Your task to perform on an android device: Search for macbook air on bestbuy.com, select the first entry, add it to the cart, then select checkout. Image 0: 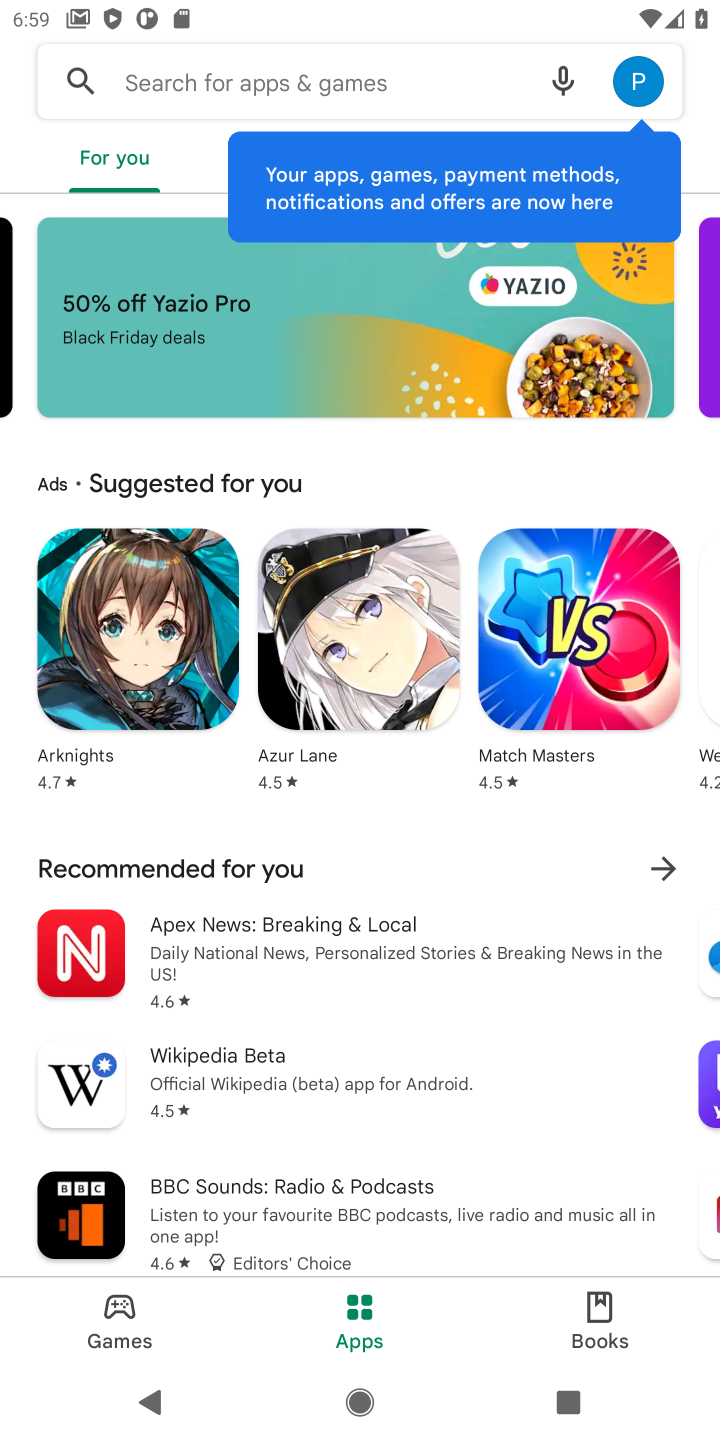
Step 0: press home button
Your task to perform on an android device: Search for macbook air on bestbuy.com, select the first entry, add it to the cart, then select checkout. Image 1: 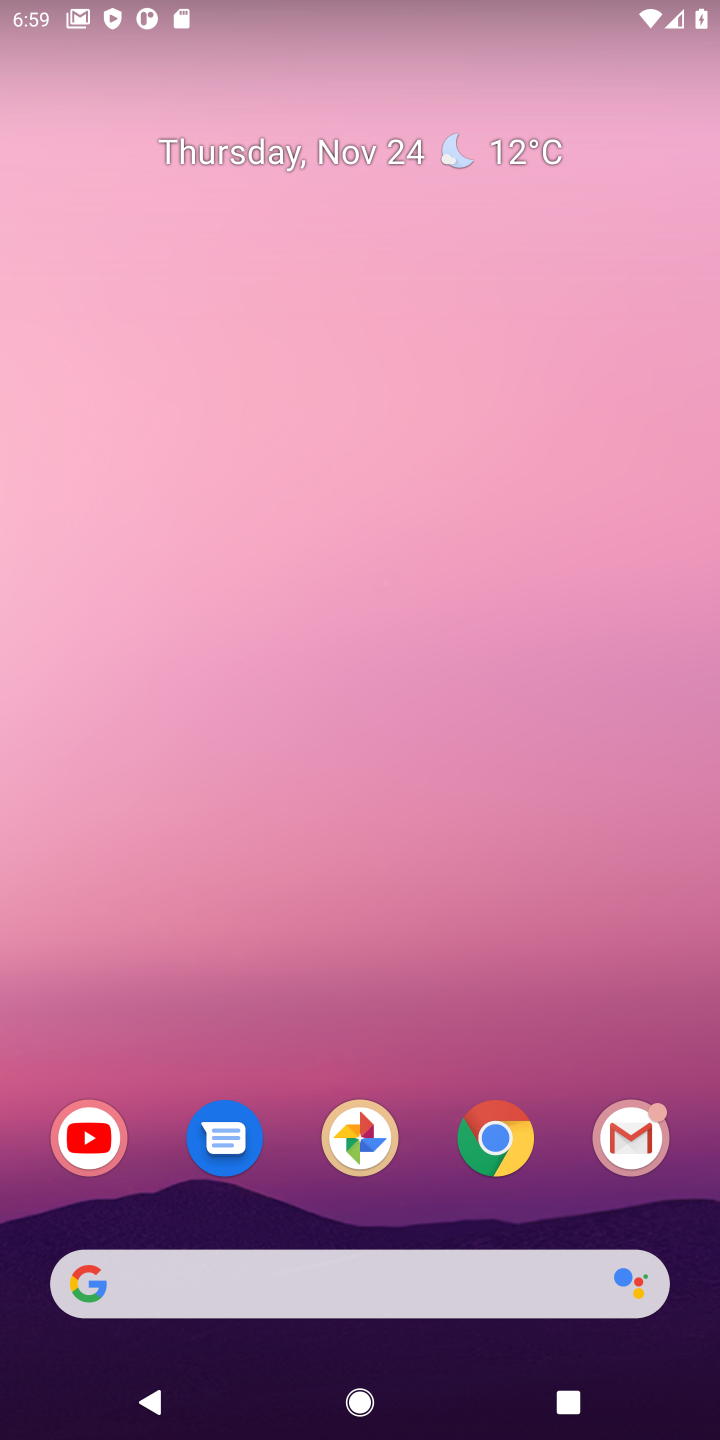
Step 1: click (483, 1145)
Your task to perform on an android device: Search for macbook air on bestbuy.com, select the first entry, add it to the cart, then select checkout. Image 2: 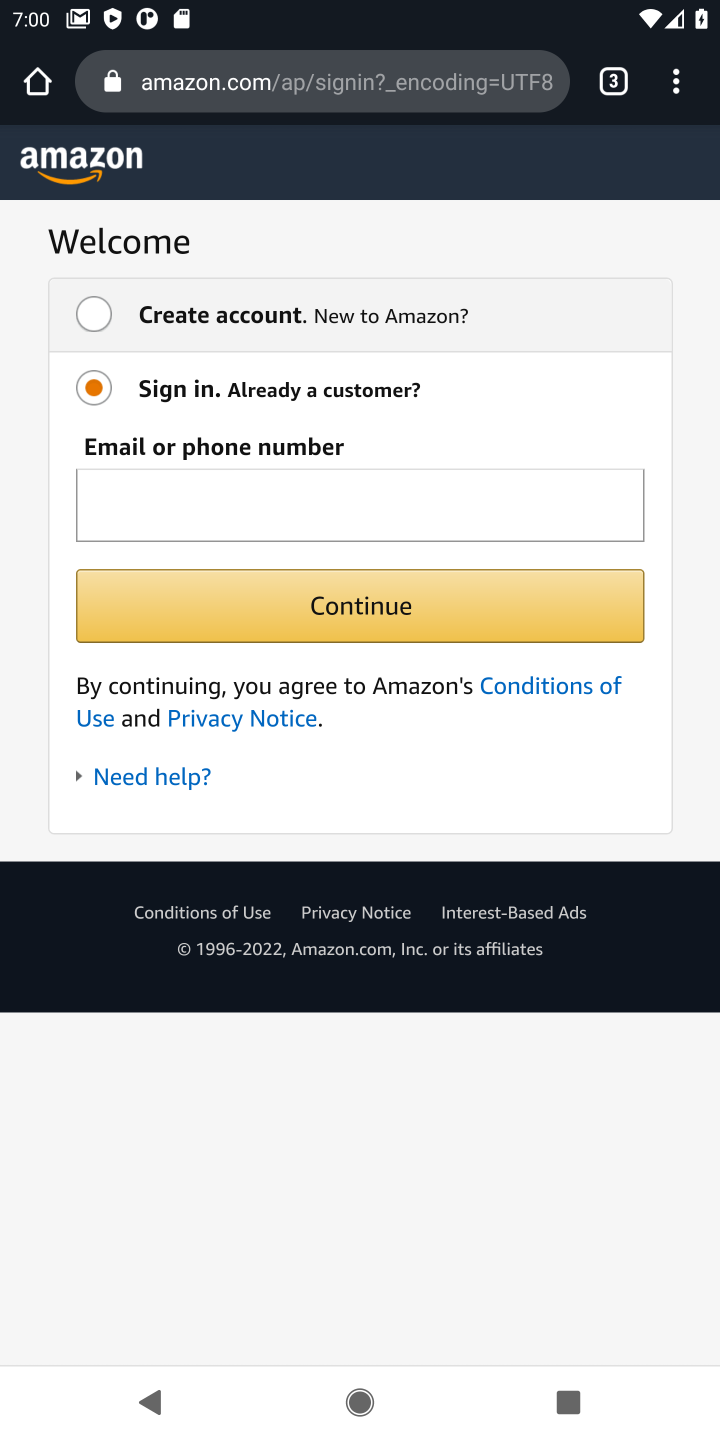
Step 2: click (603, 76)
Your task to perform on an android device: Search for macbook air on bestbuy.com, select the first entry, add it to the cart, then select checkout. Image 3: 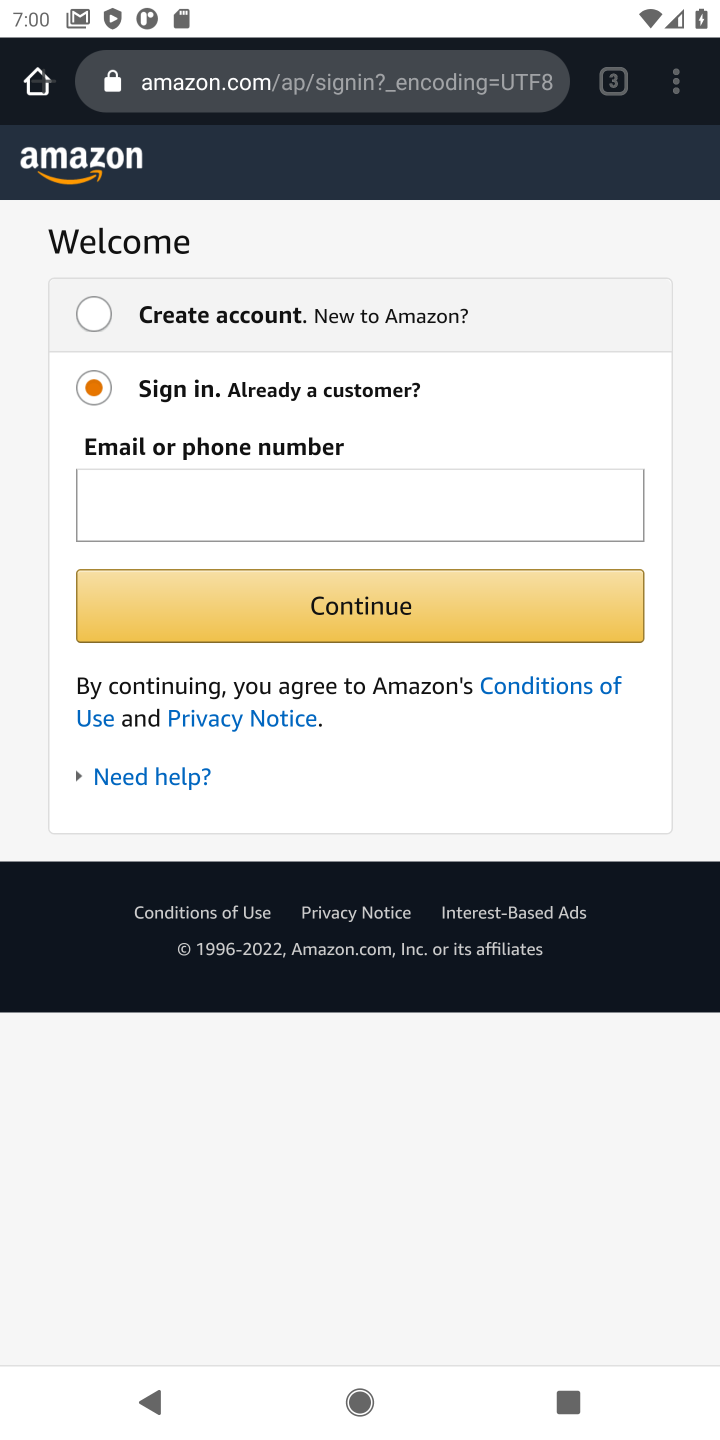
Step 3: click (603, 76)
Your task to perform on an android device: Search for macbook air on bestbuy.com, select the first entry, add it to the cart, then select checkout. Image 4: 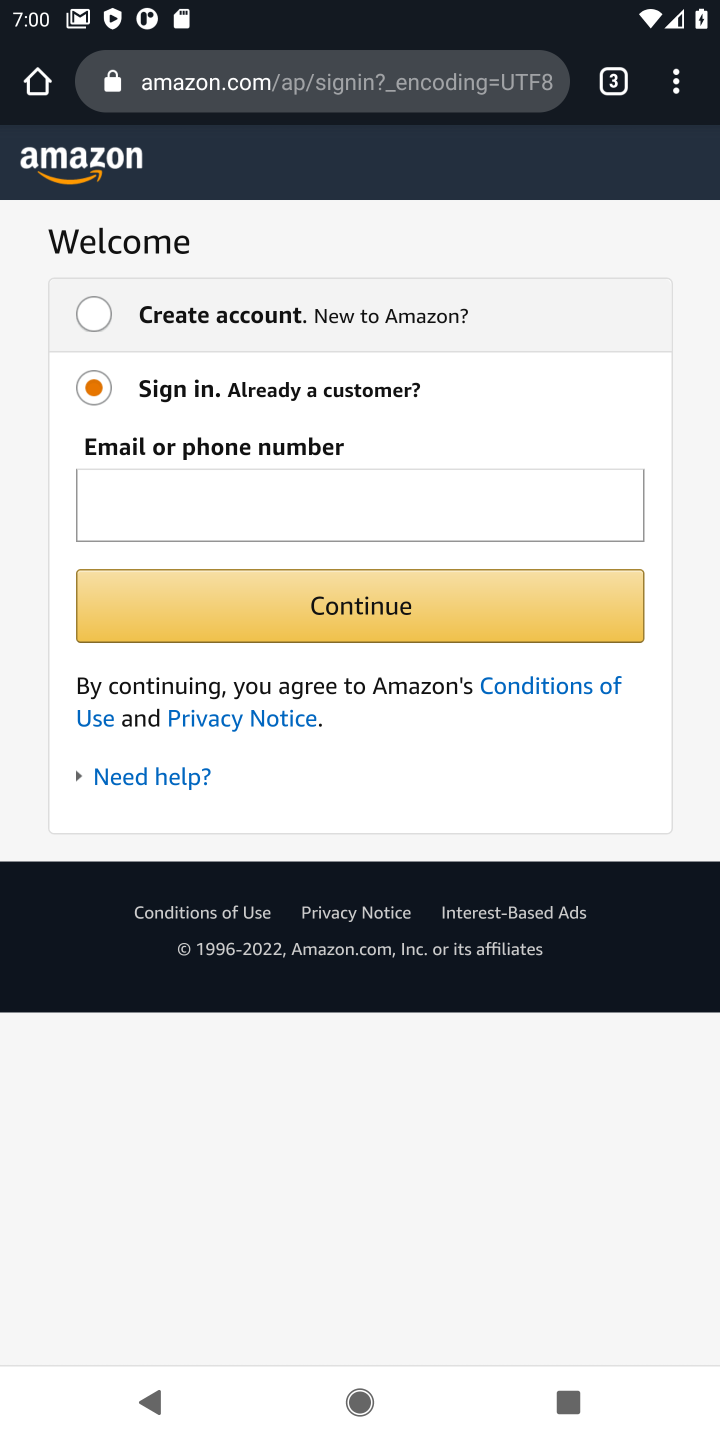
Step 4: click (612, 84)
Your task to perform on an android device: Search for macbook air on bestbuy.com, select the first entry, add it to the cart, then select checkout. Image 5: 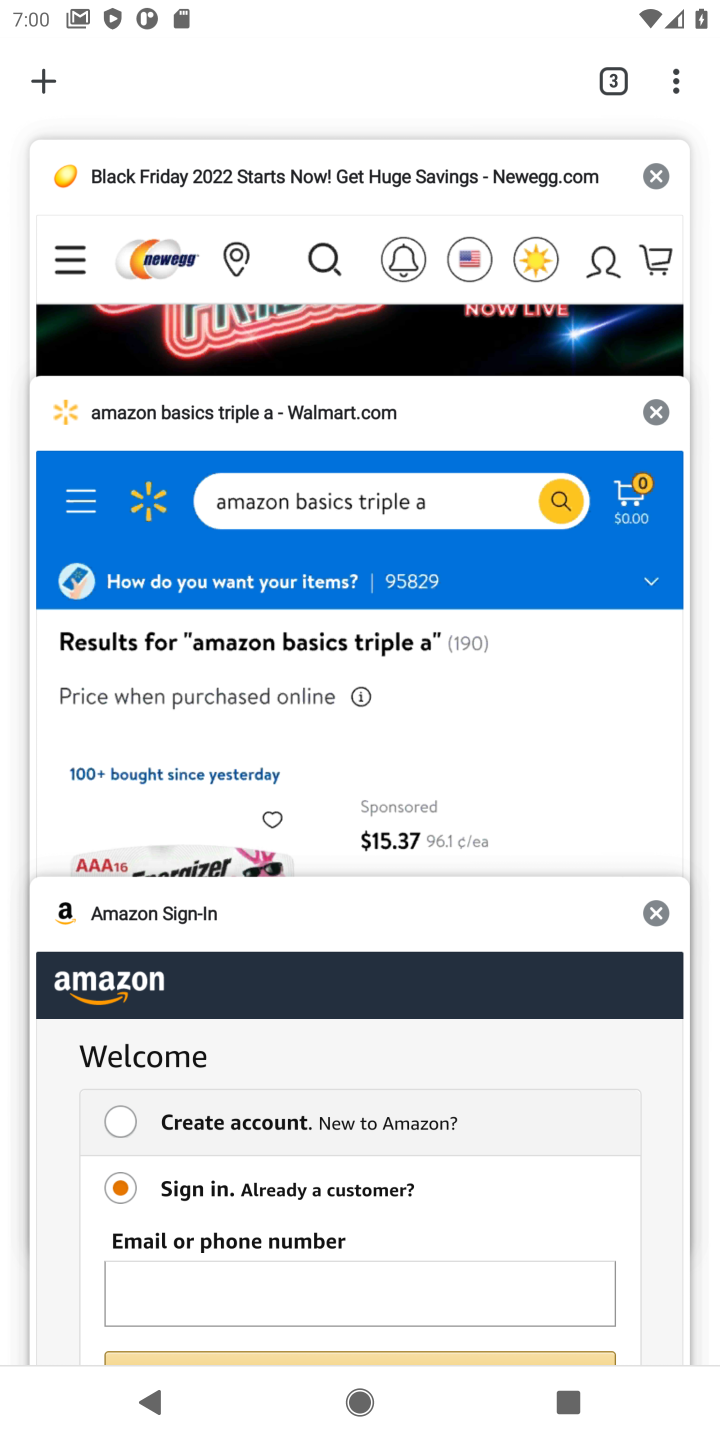
Step 5: click (34, 68)
Your task to perform on an android device: Search for macbook air on bestbuy.com, select the first entry, add it to the cart, then select checkout. Image 6: 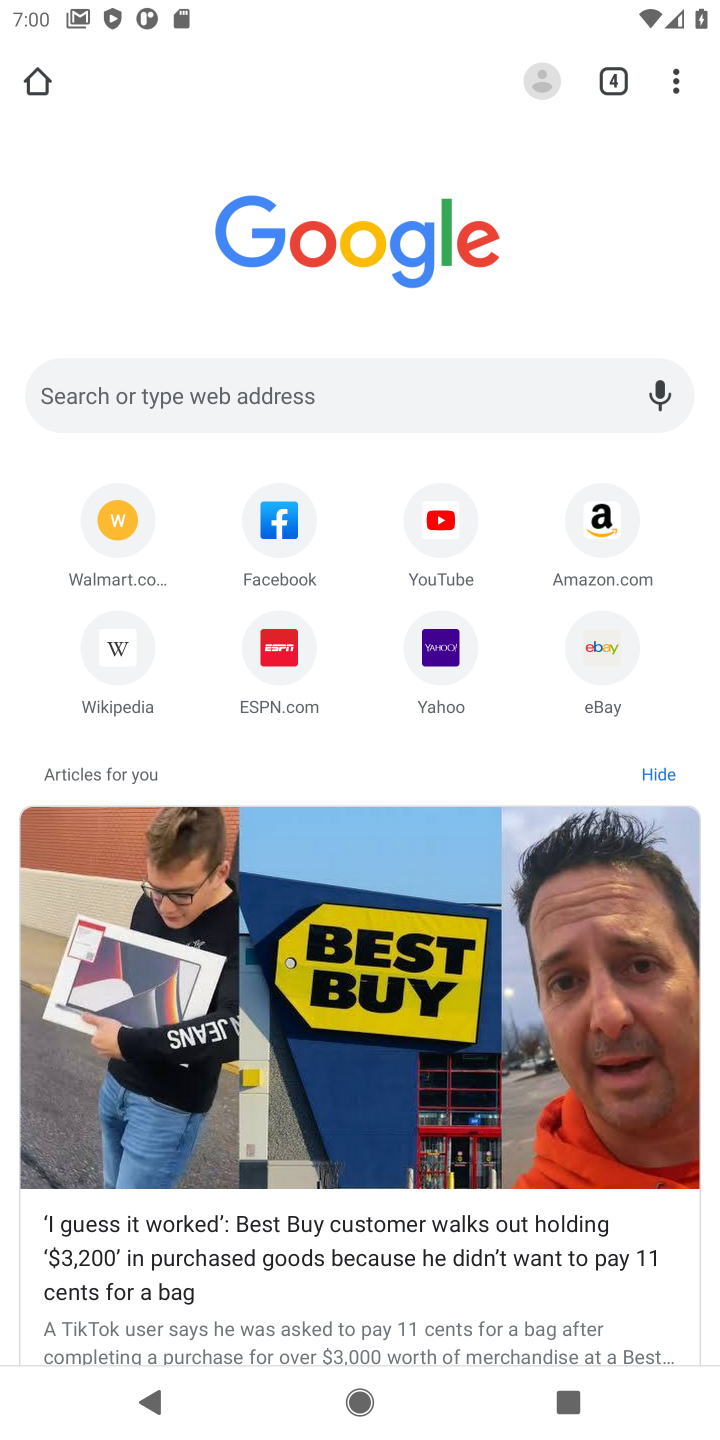
Step 6: click (208, 373)
Your task to perform on an android device: Search for macbook air on bestbuy.com, select the first entry, add it to the cart, then select checkout. Image 7: 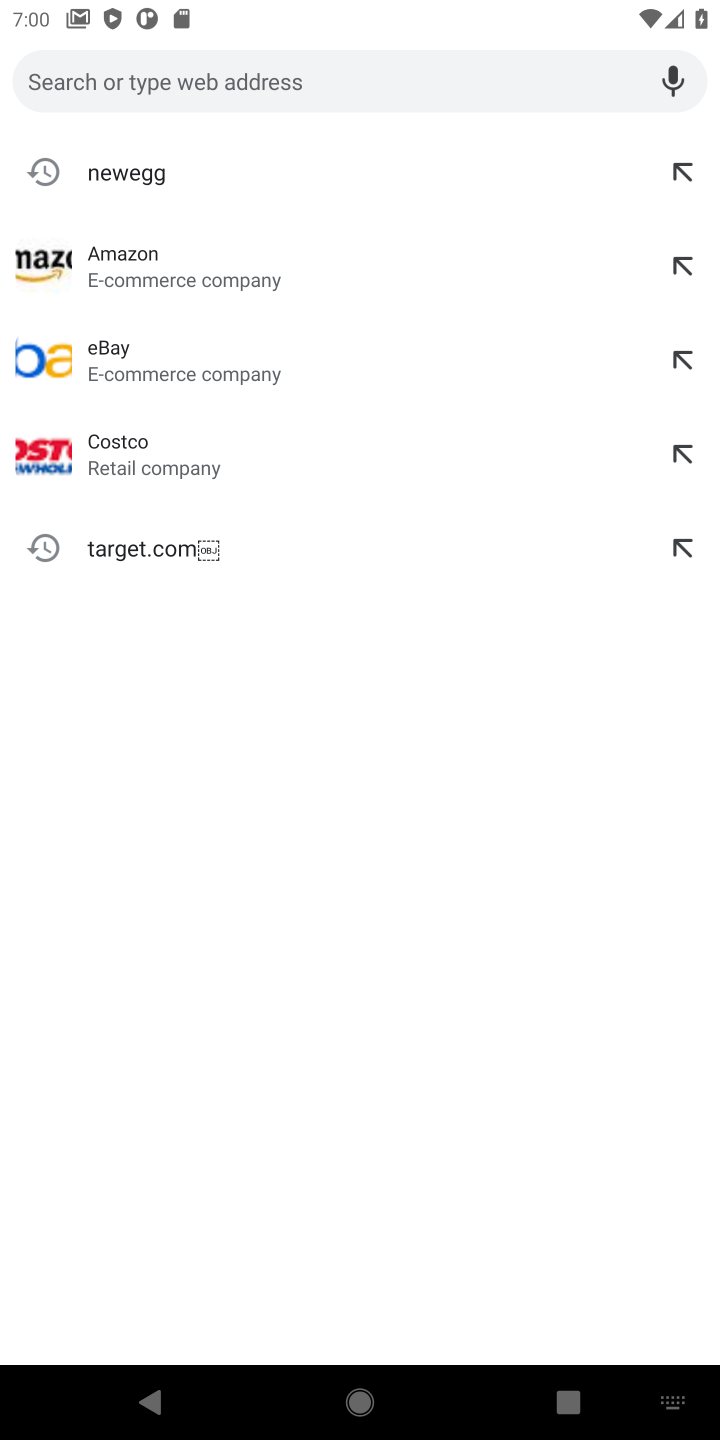
Step 7: click (195, 76)
Your task to perform on an android device: Search for macbook air on bestbuy.com, select the first entry, add it to the cart, then select checkout. Image 8: 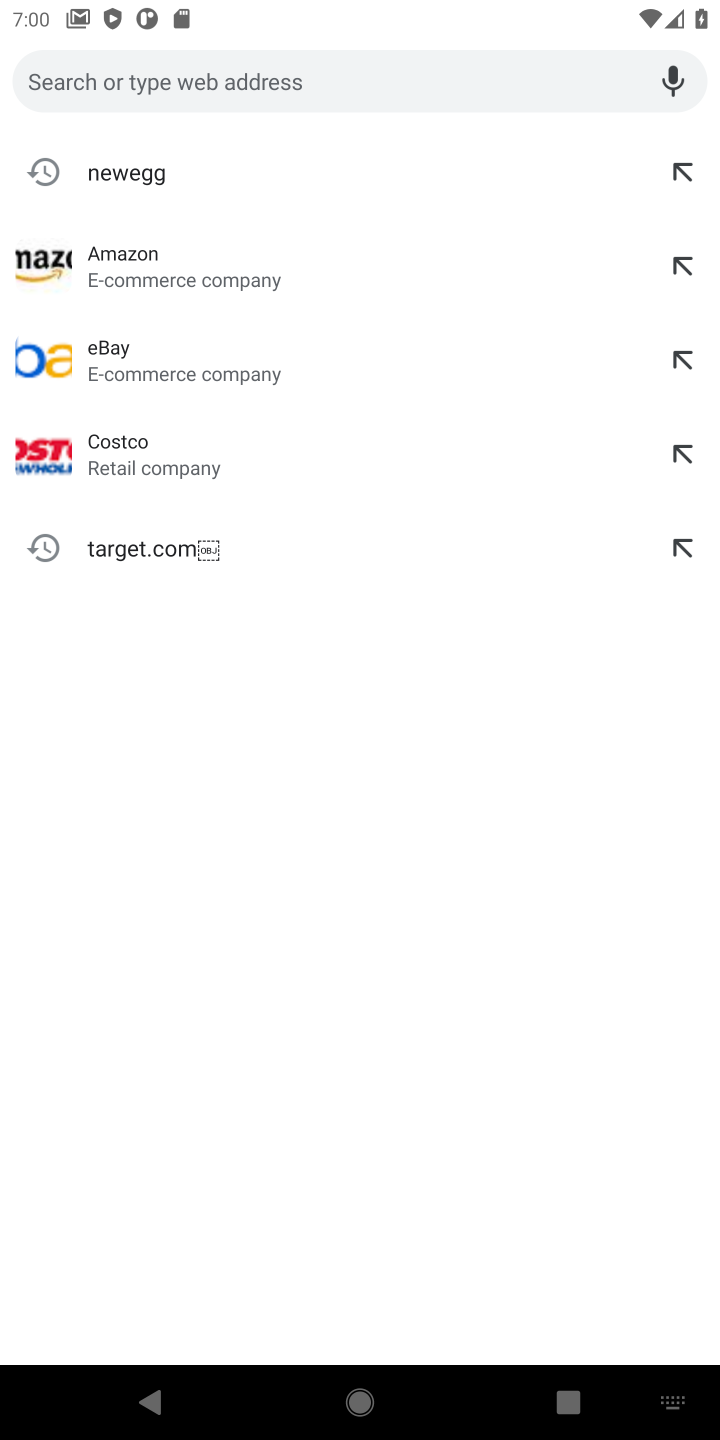
Step 8: click (396, 44)
Your task to perform on an android device: Search for macbook air on bestbuy.com, select the first entry, add it to the cart, then select checkout. Image 9: 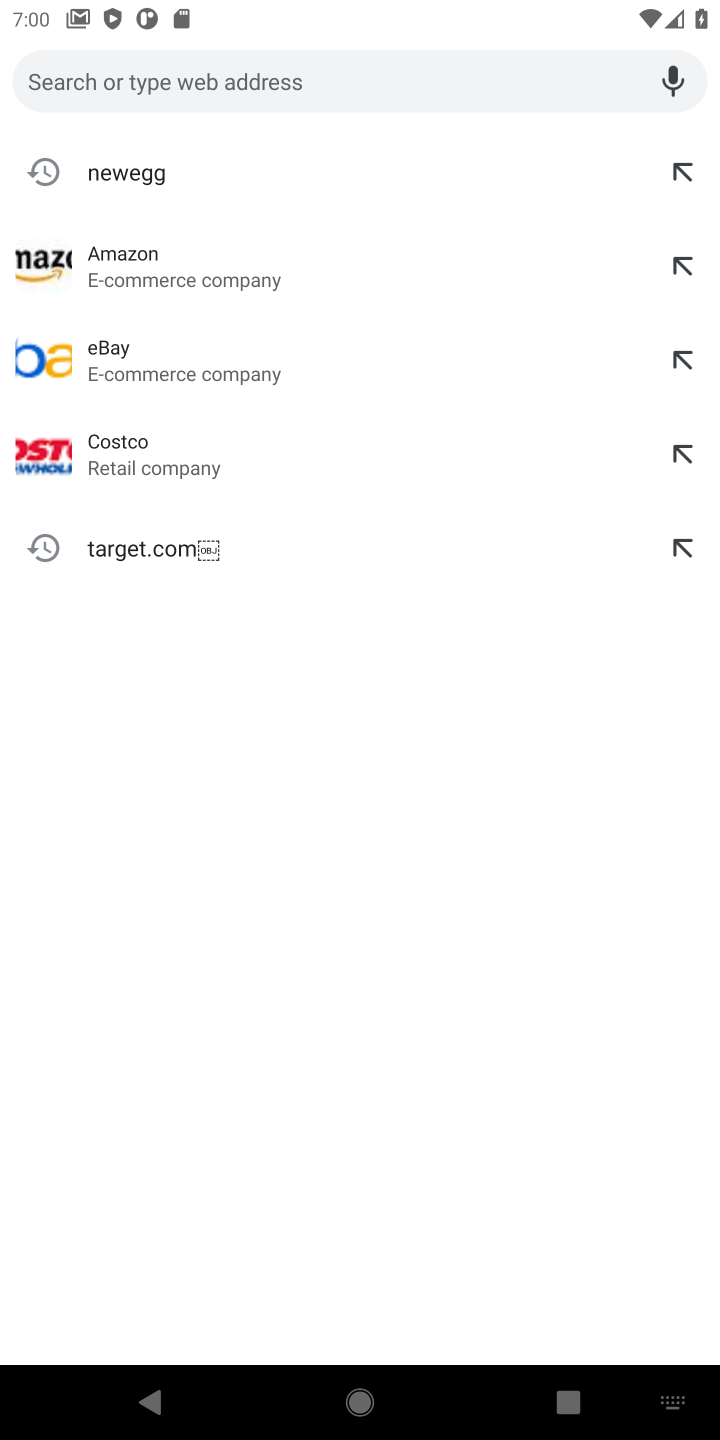
Step 9: type " bestbuy.com"
Your task to perform on an android device: Search for macbook air on bestbuy.com, select the first entry, add it to the cart, then select checkout. Image 10: 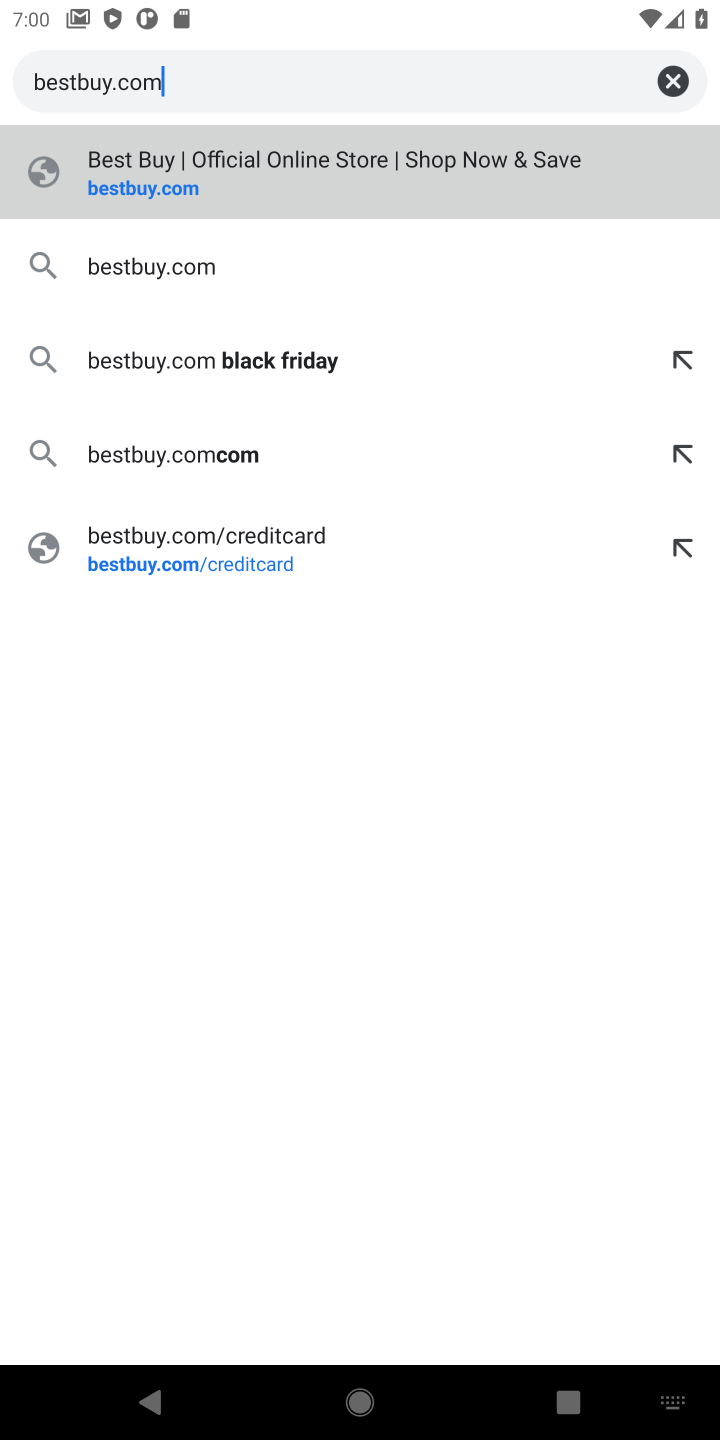
Step 10: click (217, 171)
Your task to perform on an android device: Search for macbook air on bestbuy.com, select the first entry, add it to the cart, then select checkout. Image 11: 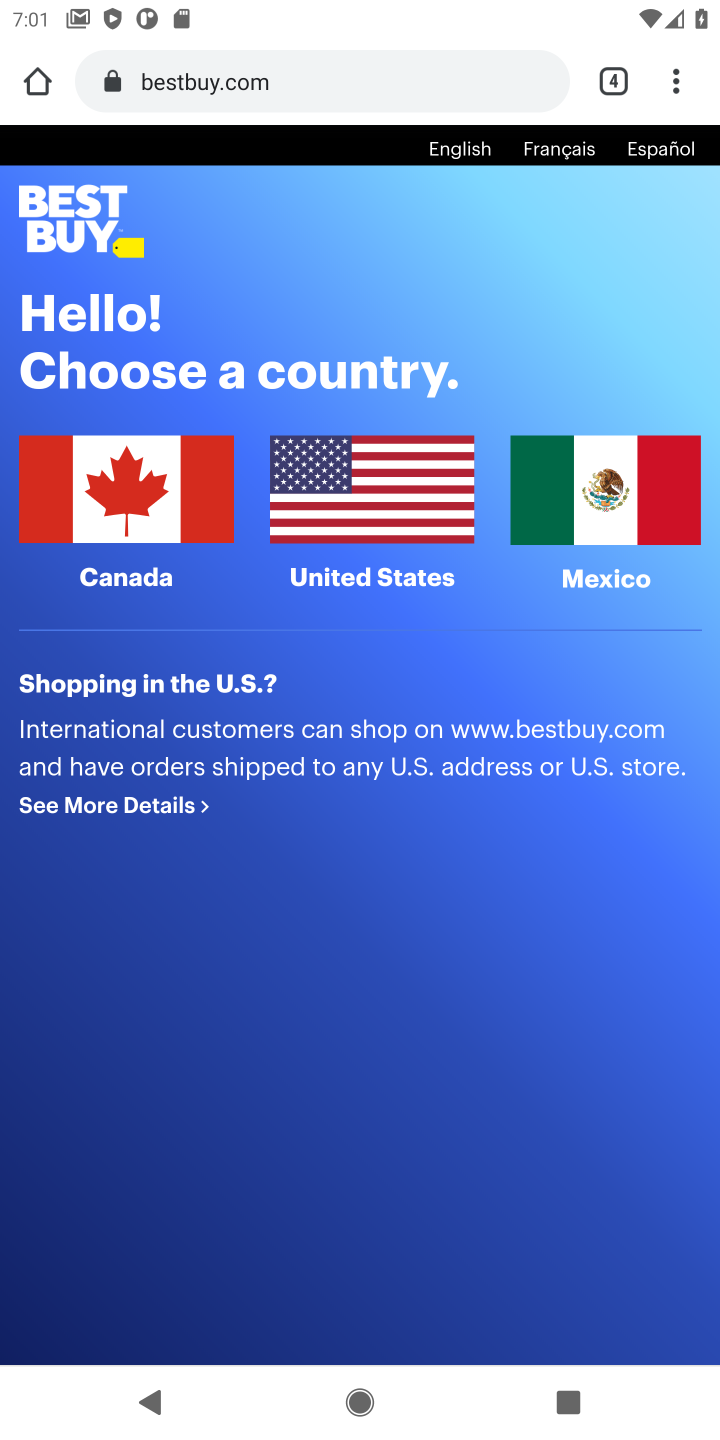
Step 11: click (360, 504)
Your task to perform on an android device: Search for macbook air on bestbuy.com, select the first entry, add it to the cart, then select checkout. Image 12: 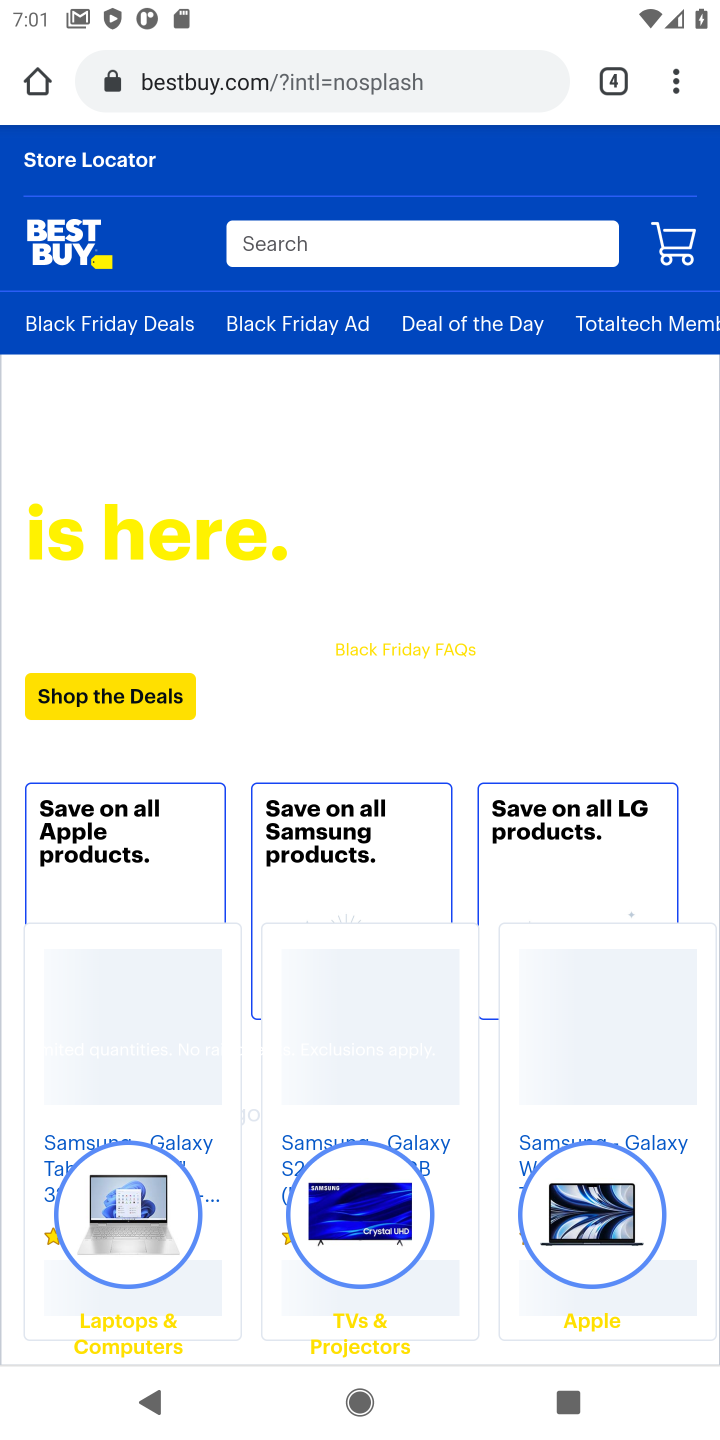
Step 12: click (285, 251)
Your task to perform on an android device: Search for macbook air on bestbuy.com, select the first entry, add it to the cart, then select checkout. Image 13: 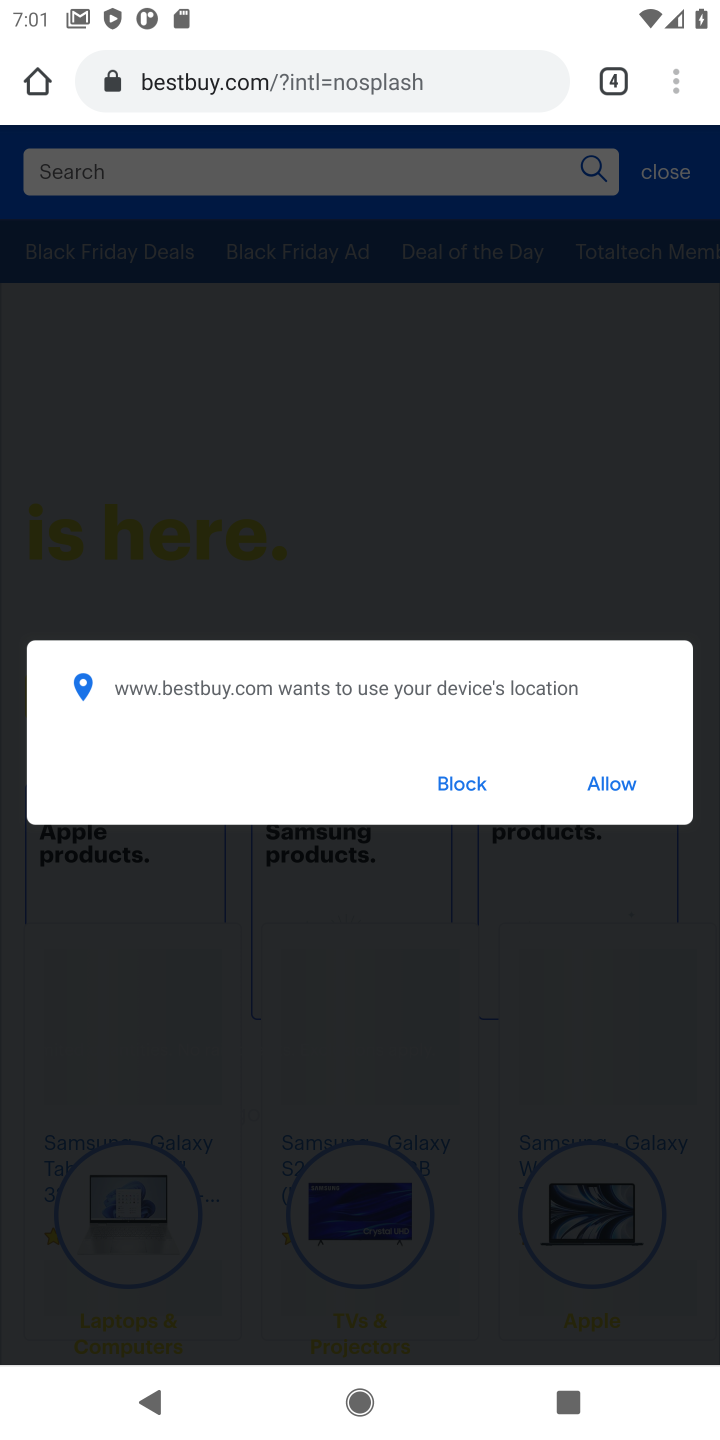
Step 13: click (465, 796)
Your task to perform on an android device: Search for macbook air on bestbuy.com, select the first entry, add it to the cart, then select checkout. Image 14: 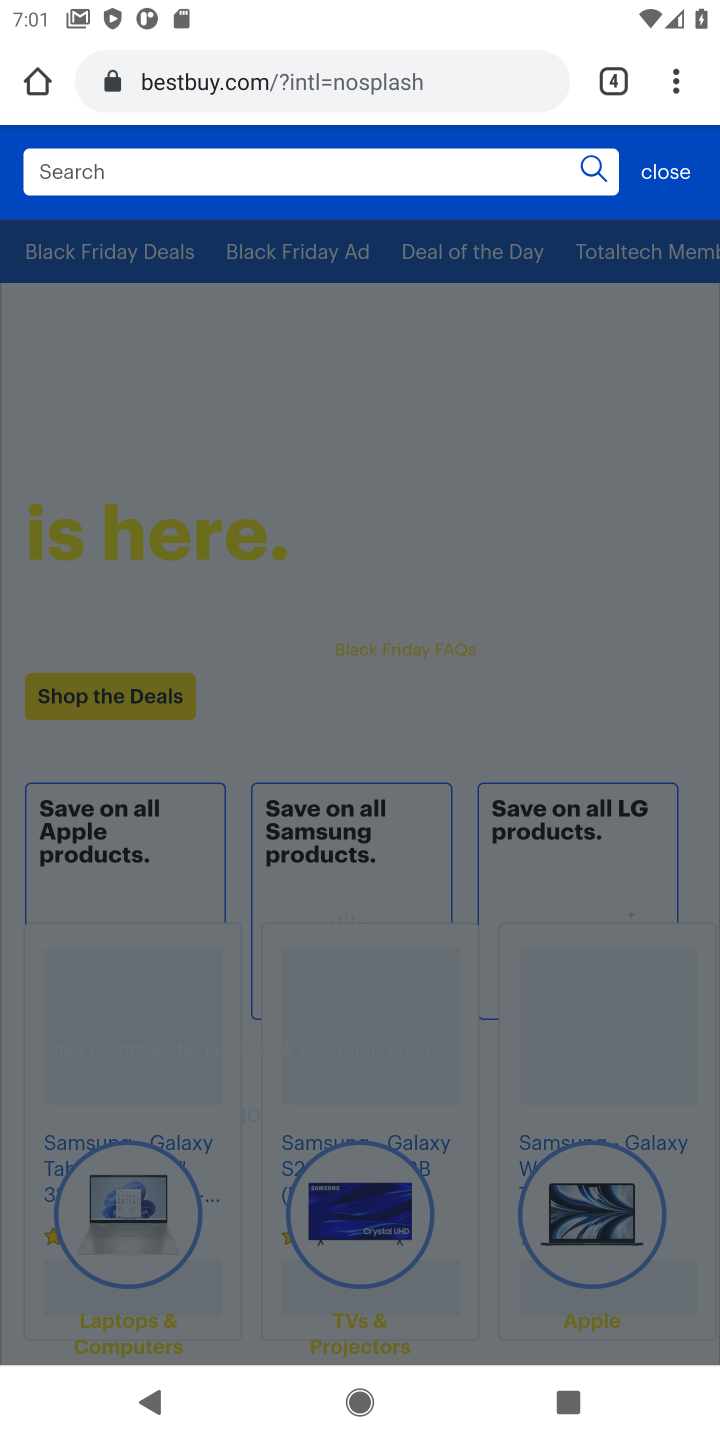
Step 14: click (191, 179)
Your task to perform on an android device: Search for macbook air on bestbuy.com, select the first entry, add it to the cart, then select checkout. Image 15: 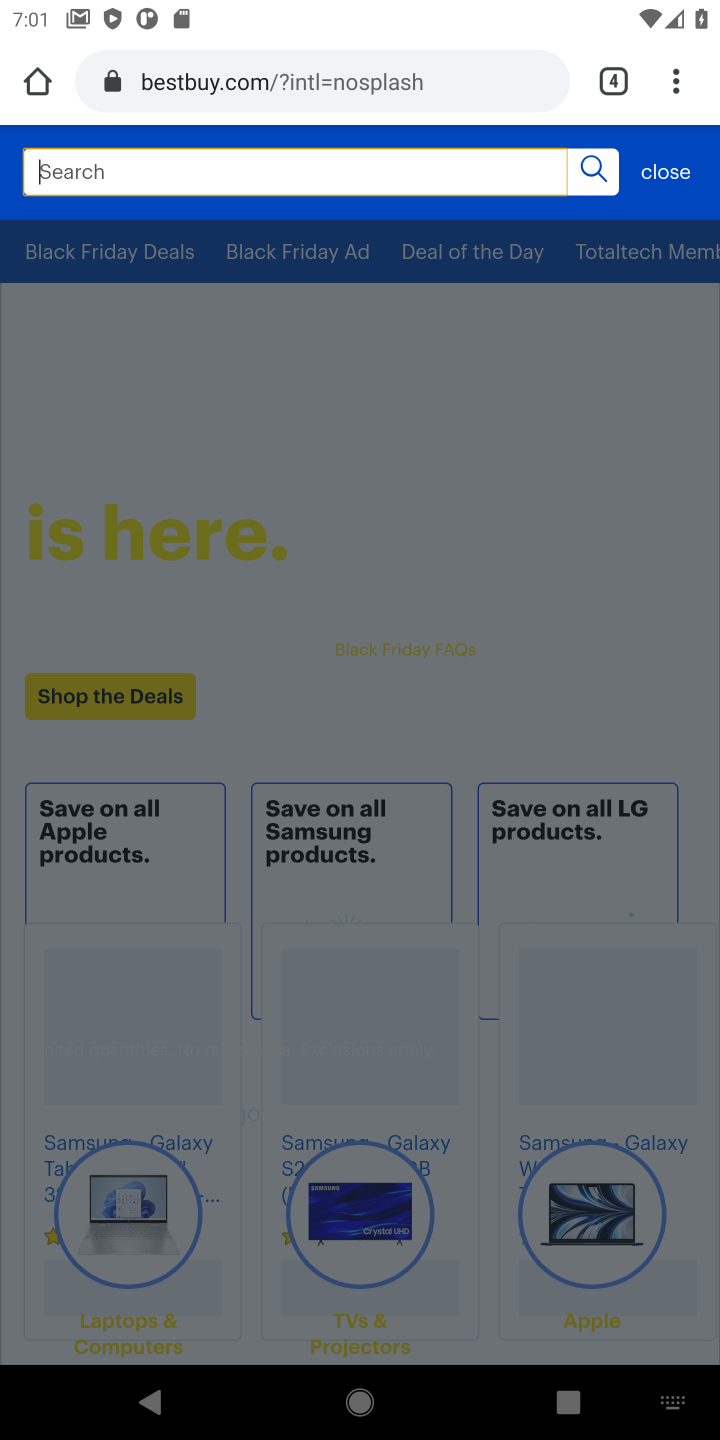
Step 15: type "macbook air"
Your task to perform on an android device: Search for macbook air on bestbuy.com, select the first entry, add it to the cart, then select checkout. Image 16: 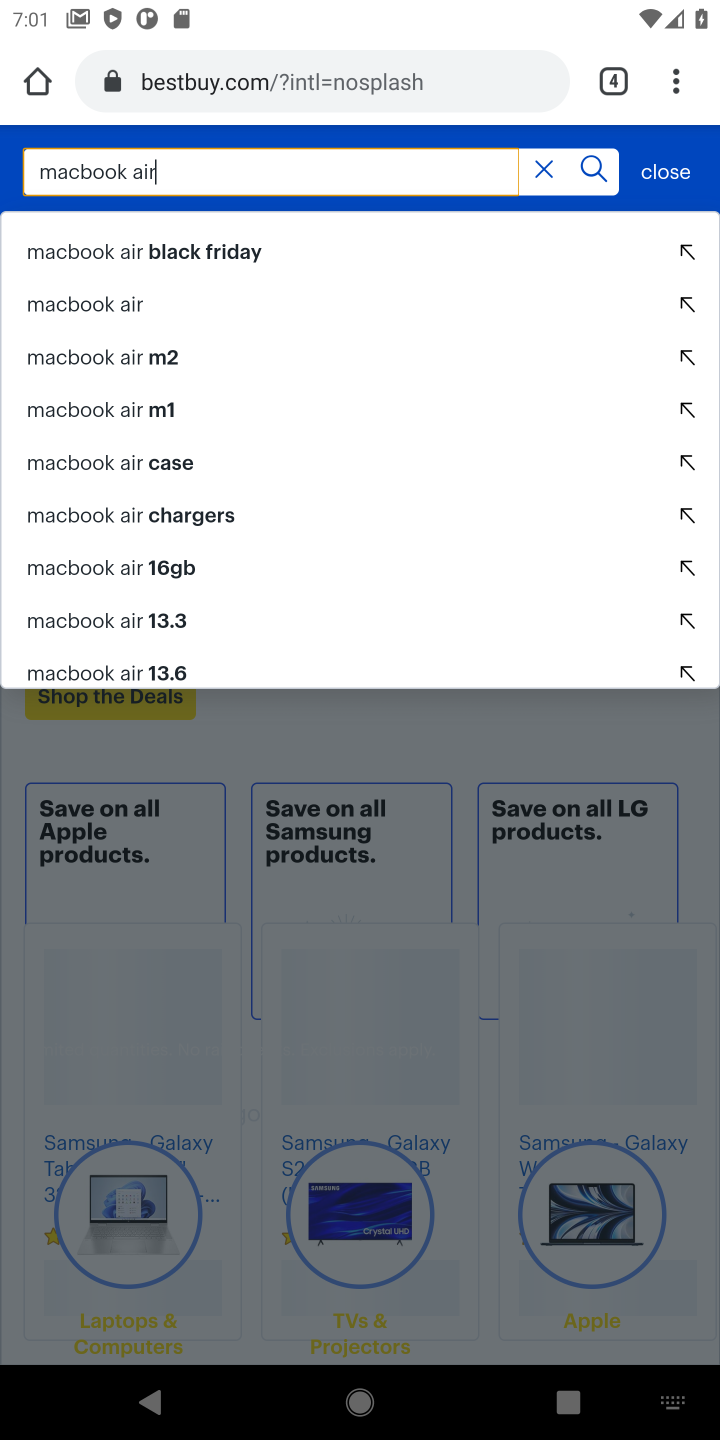
Step 16: click (143, 243)
Your task to perform on an android device: Search for macbook air on bestbuy.com, select the first entry, add it to the cart, then select checkout. Image 17: 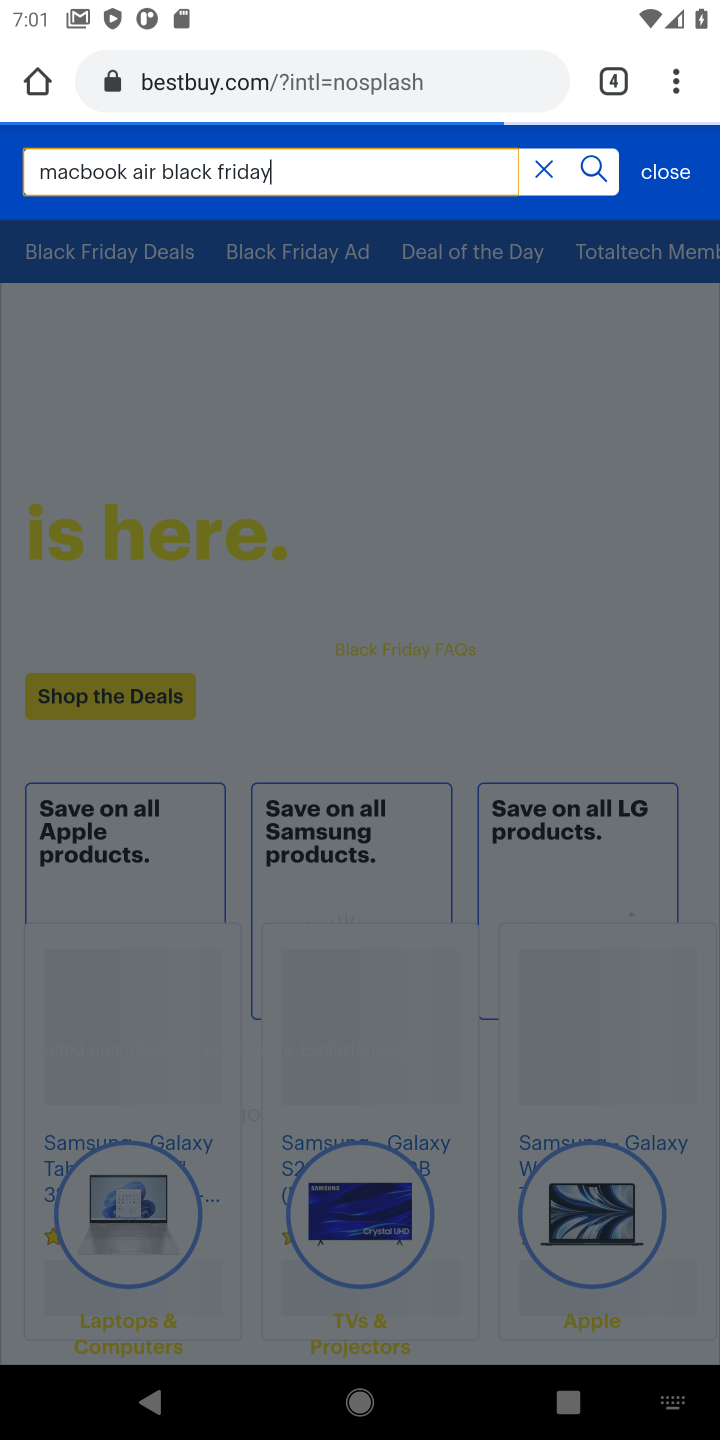
Step 17: click (143, 243)
Your task to perform on an android device: Search for macbook air on bestbuy.com, select the first entry, add it to the cart, then select checkout. Image 18: 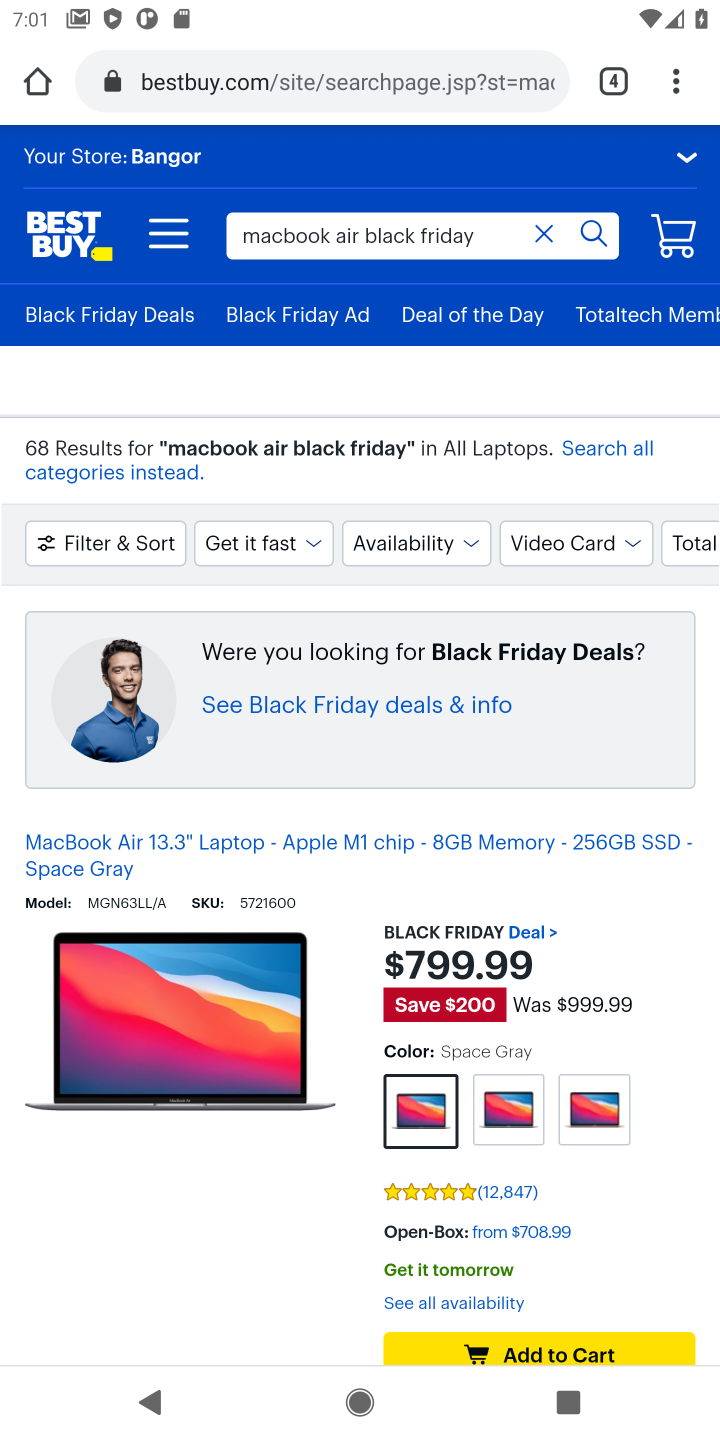
Step 18: drag from (347, 1067) to (314, 564)
Your task to perform on an android device: Search for macbook air on bestbuy.com, select the first entry, add it to the cart, then select checkout. Image 19: 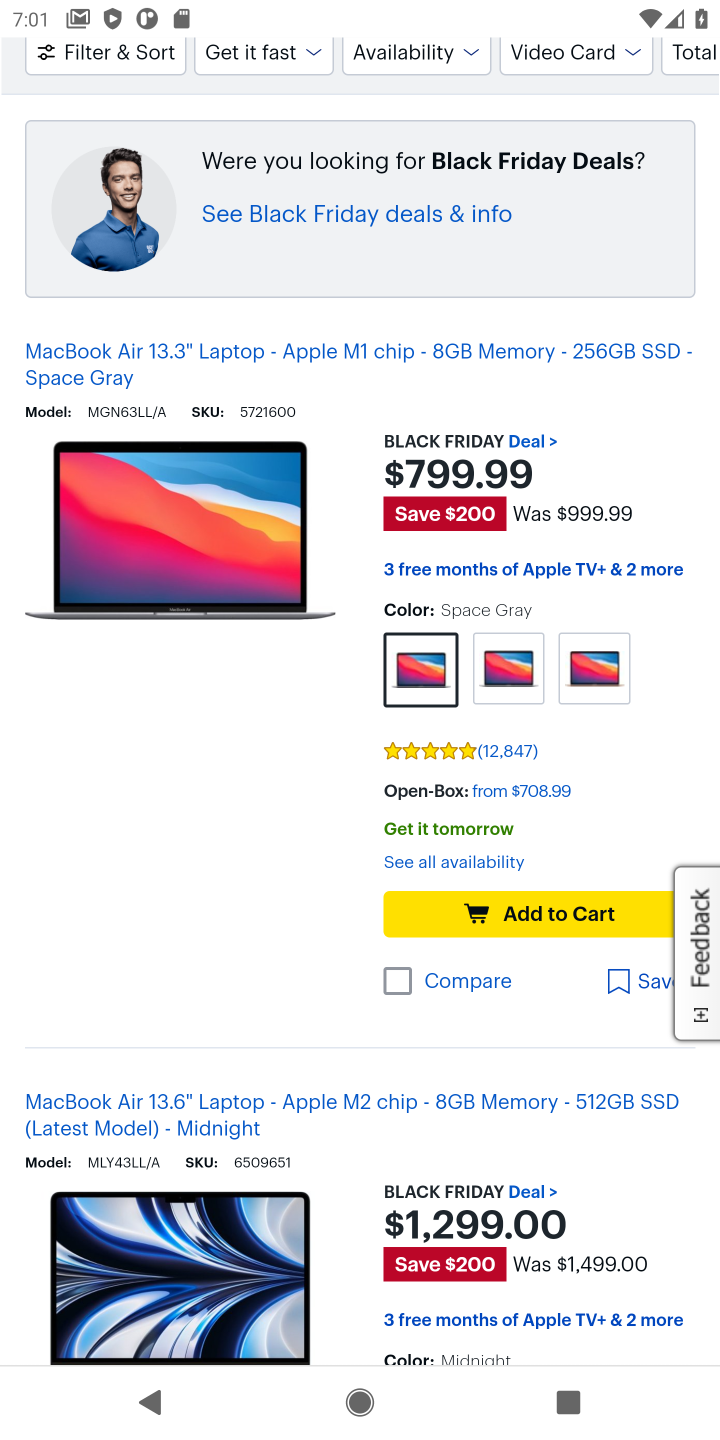
Step 19: click (540, 930)
Your task to perform on an android device: Search for macbook air on bestbuy.com, select the first entry, add it to the cart, then select checkout. Image 20: 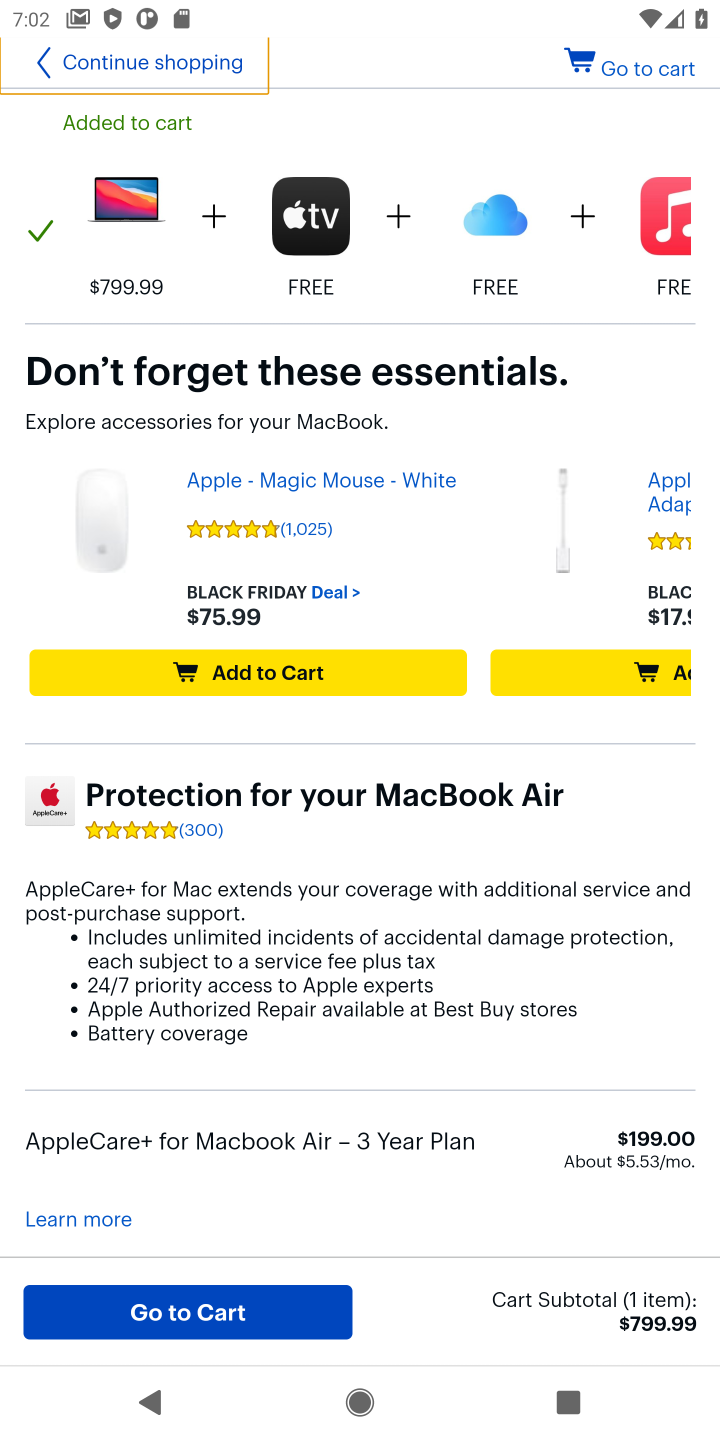
Step 20: drag from (425, 1093) to (341, 901)
Your task to perform on an android device: Search for macbook air on bestbuy.com, select the first entry, add it to the cart, then select checkout. Image 21: 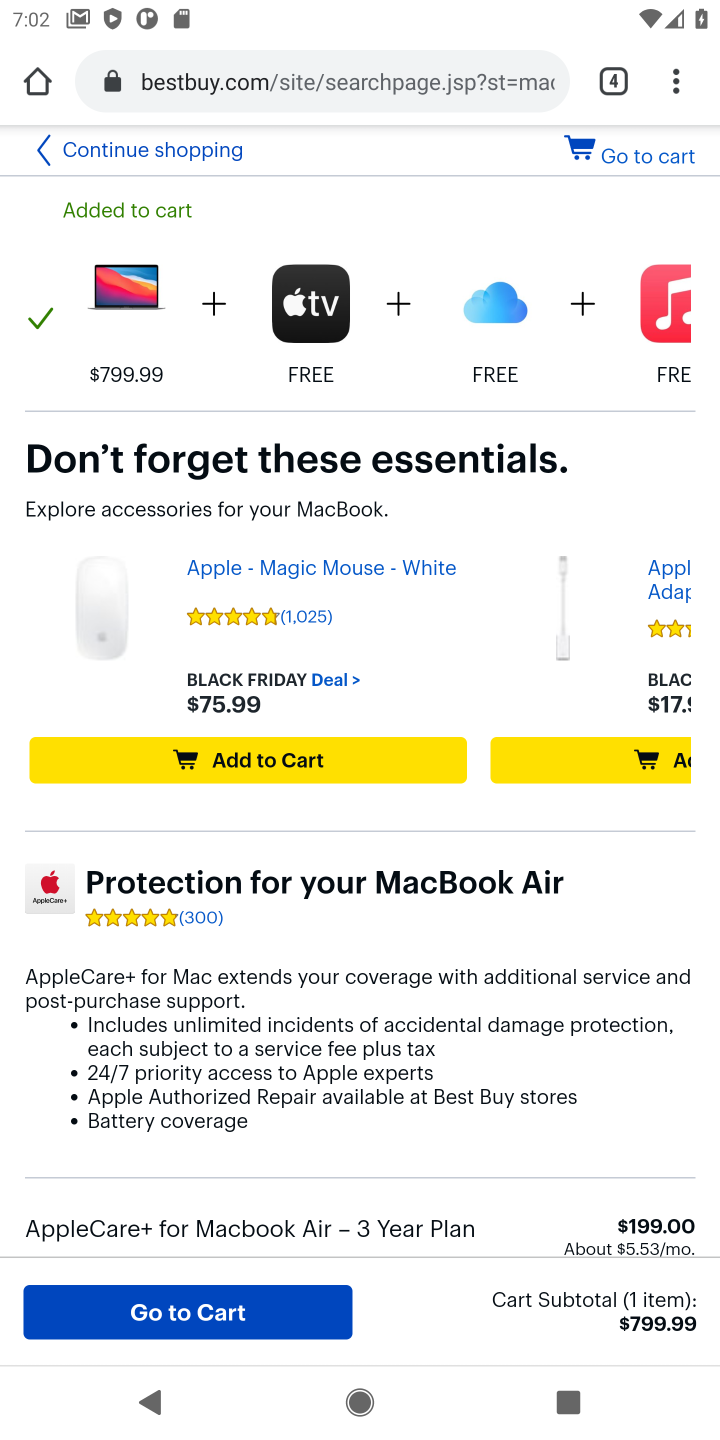
Step 21: drag from (311, 1274) to (401, 843)
Your task to perform on an android device: Search for macbook air on bestbuy.com, select the first entry, add it to the cart, then select checkout. Image 22: 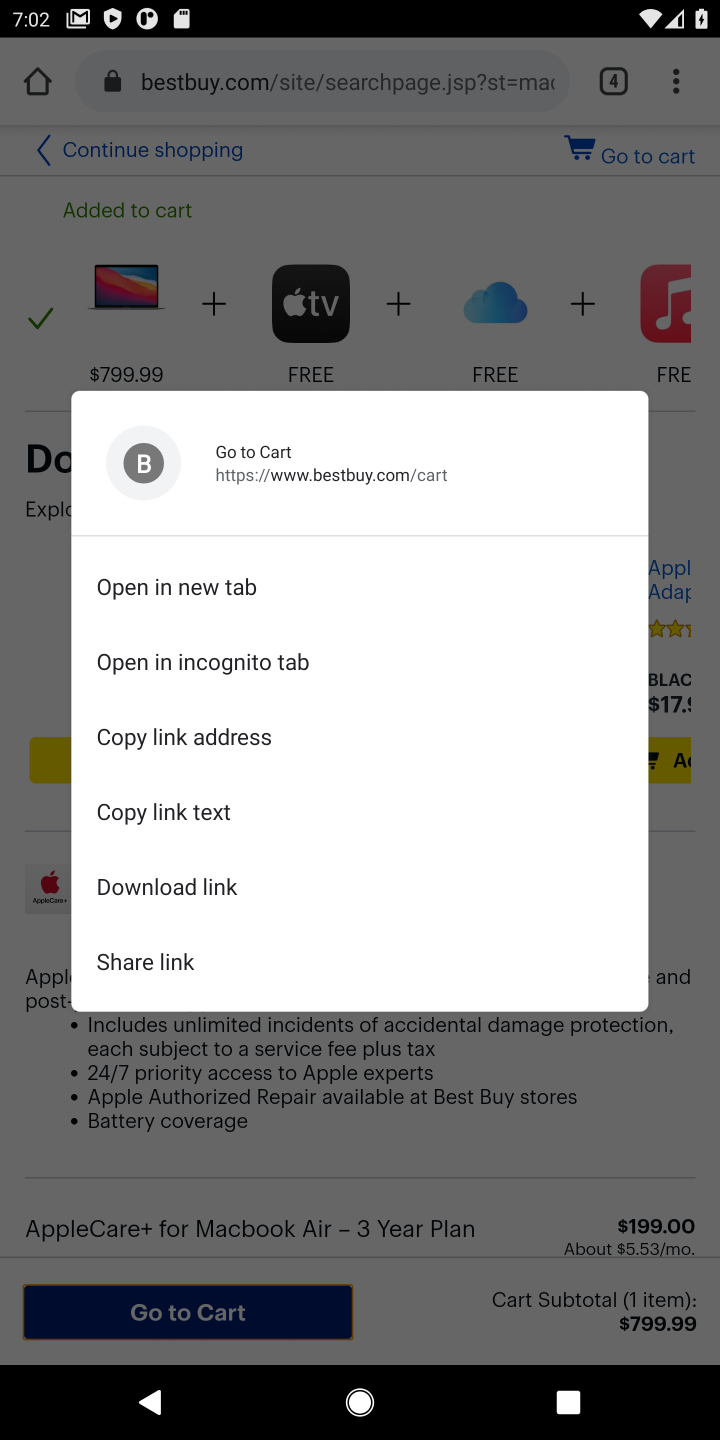
Step 22: click (346, 1066)
Your task to perform on an android device: Search for macbook air on bestbuy.com, select the first entry, add it to the cart, then select checkout. Image 23: 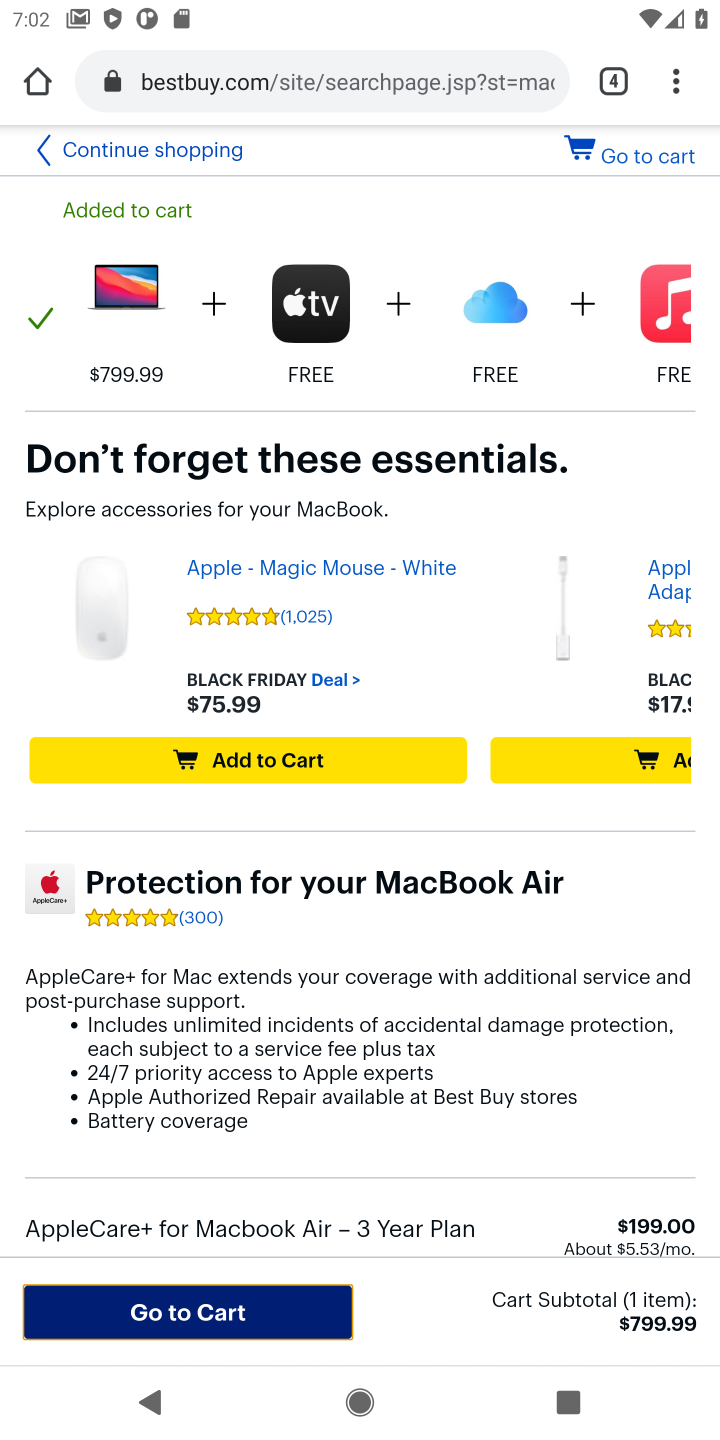
Step 23: drag from (354, 1016) to (450, 141)
Your task to perform on an android device: Search for macbook air on bestbuy.com, select the first entry, add it to the cart, then select checkout. Image 24: 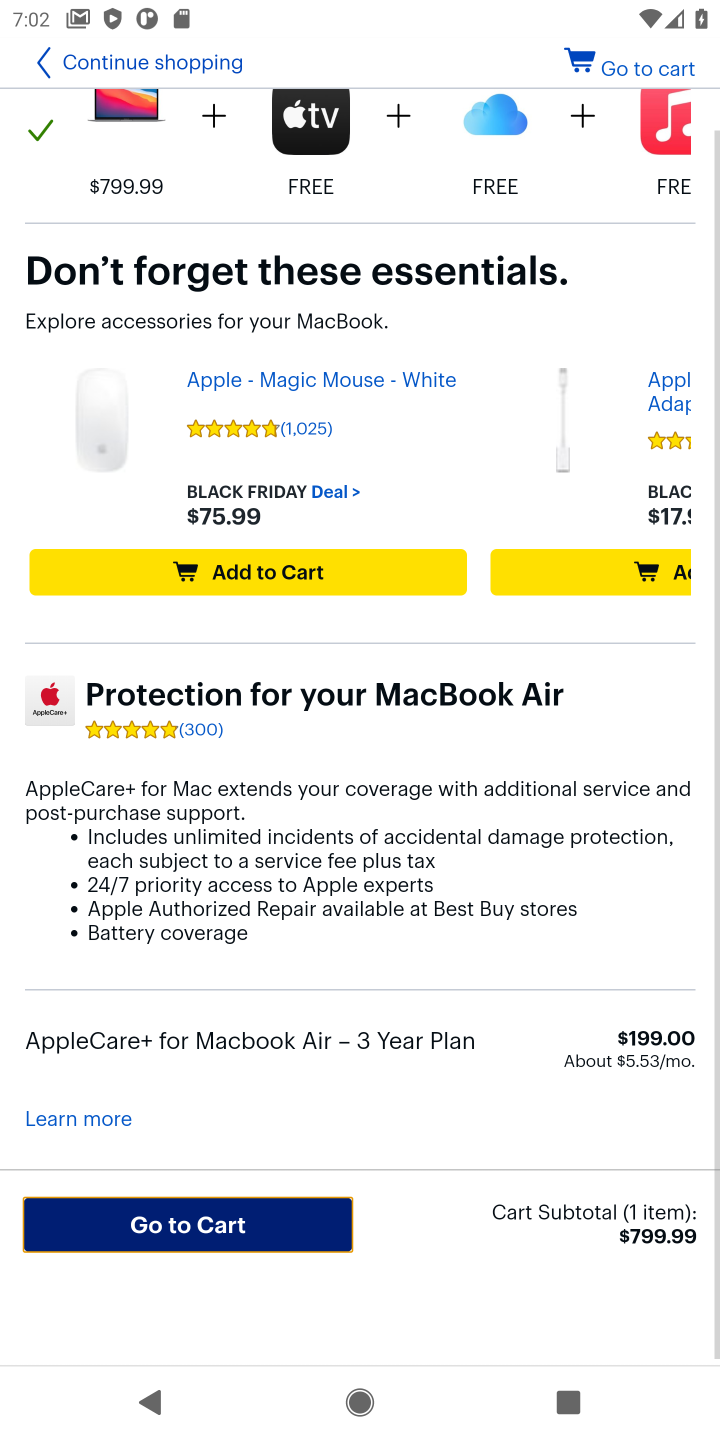
Step 24: drag from (450, 1070) to (509, 583)
Your task to perform on an android device: Search for macbook air on bestbuy.com, select the first entry, add it to the cart, then select checkout. Image 25: 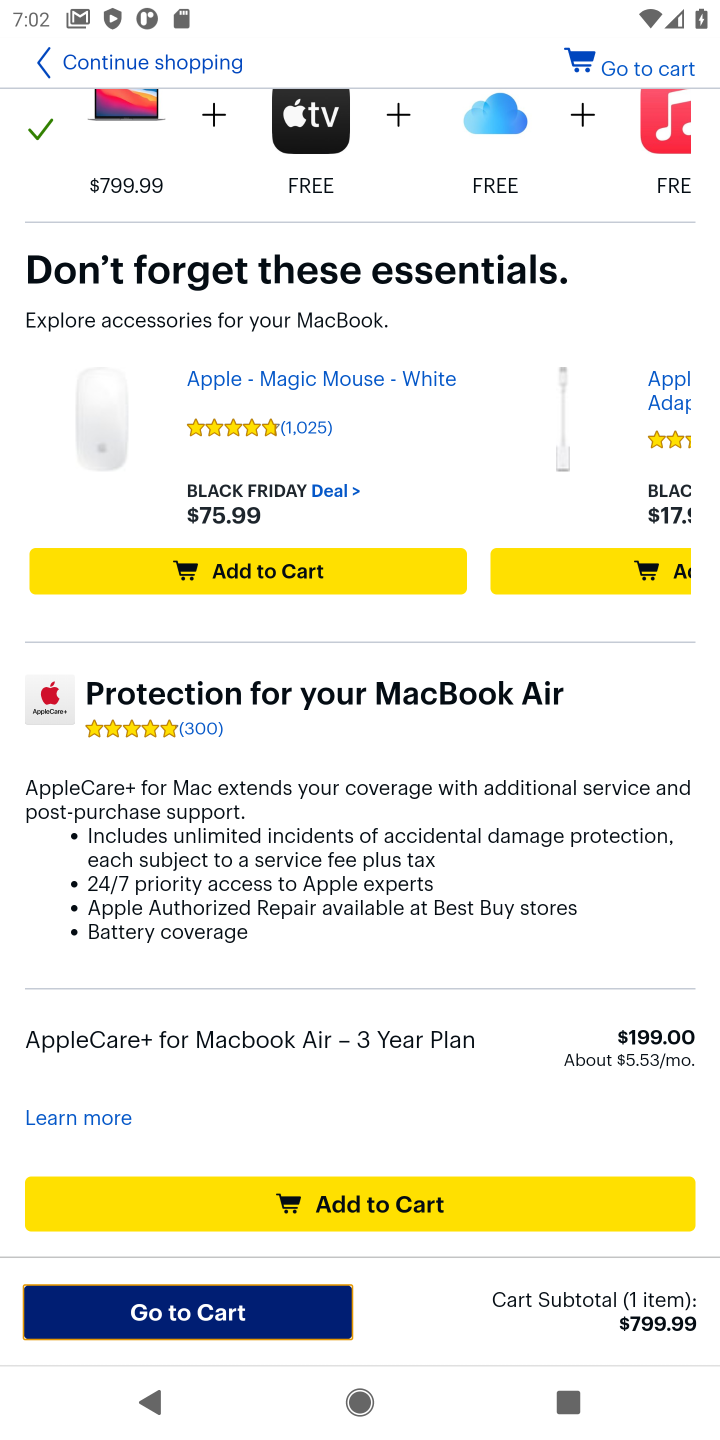
Step 25: click (294, 1195)
Your task to perform on an android device: Search for macbook air on bestbuy.com, select the first entry, add it to the cart, then select checkout. Image 26: 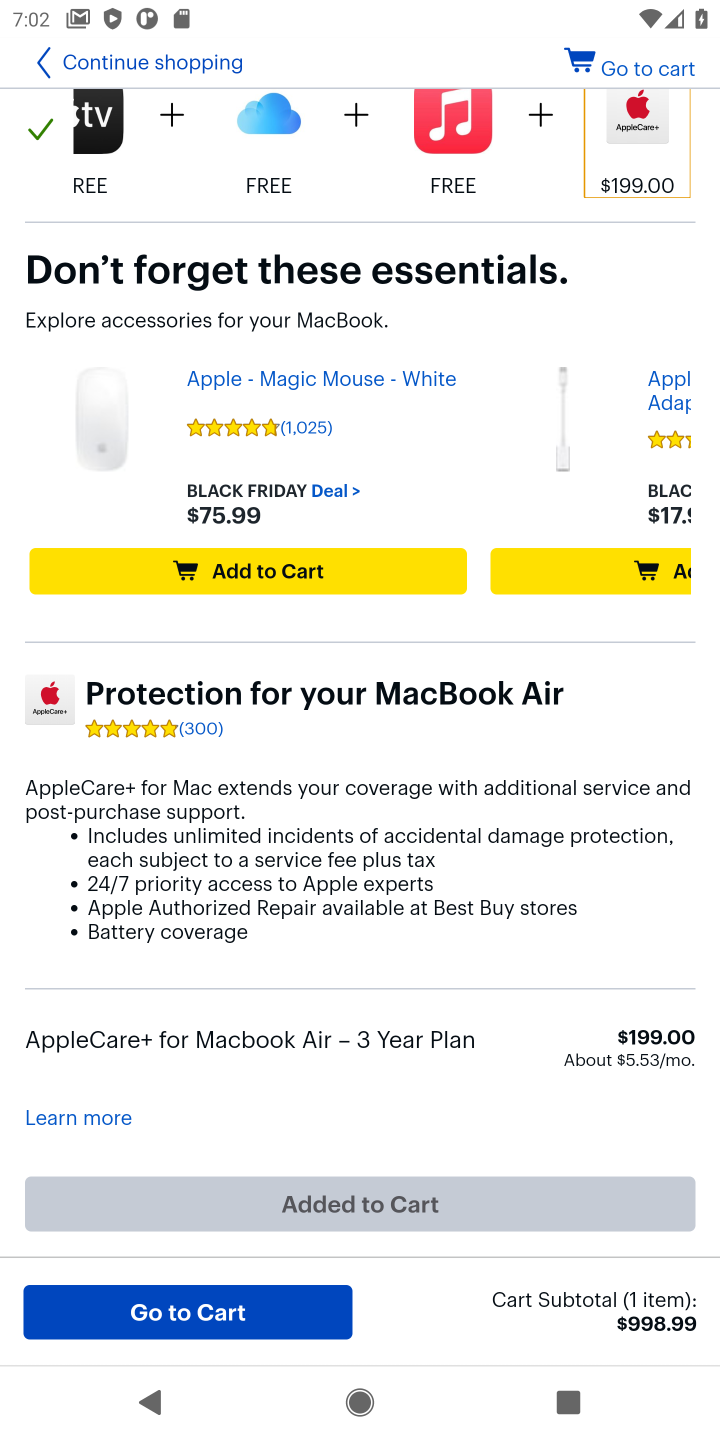
Step 26: drag from (350, 1062) to (405, 399)
Your task to perform on an android device: Search for macbook air on bestbuy.com, select the first entry, add it to the cart, then select checkout. Image 27: 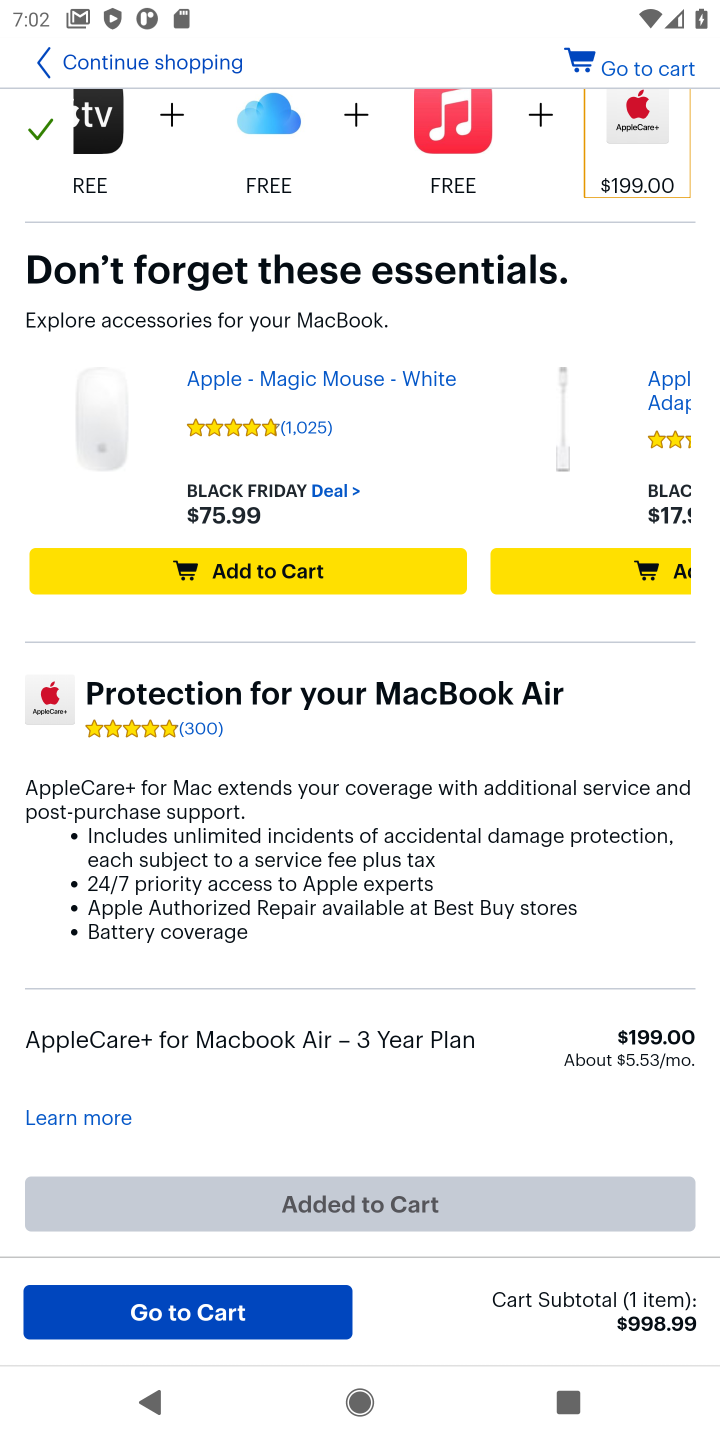
Step 27: click (178, 1324)
Your task to perform on an android device: Search for macbook air on bestbuy.com, select the first entry, add it to the cart, then select checkout. Image 28: 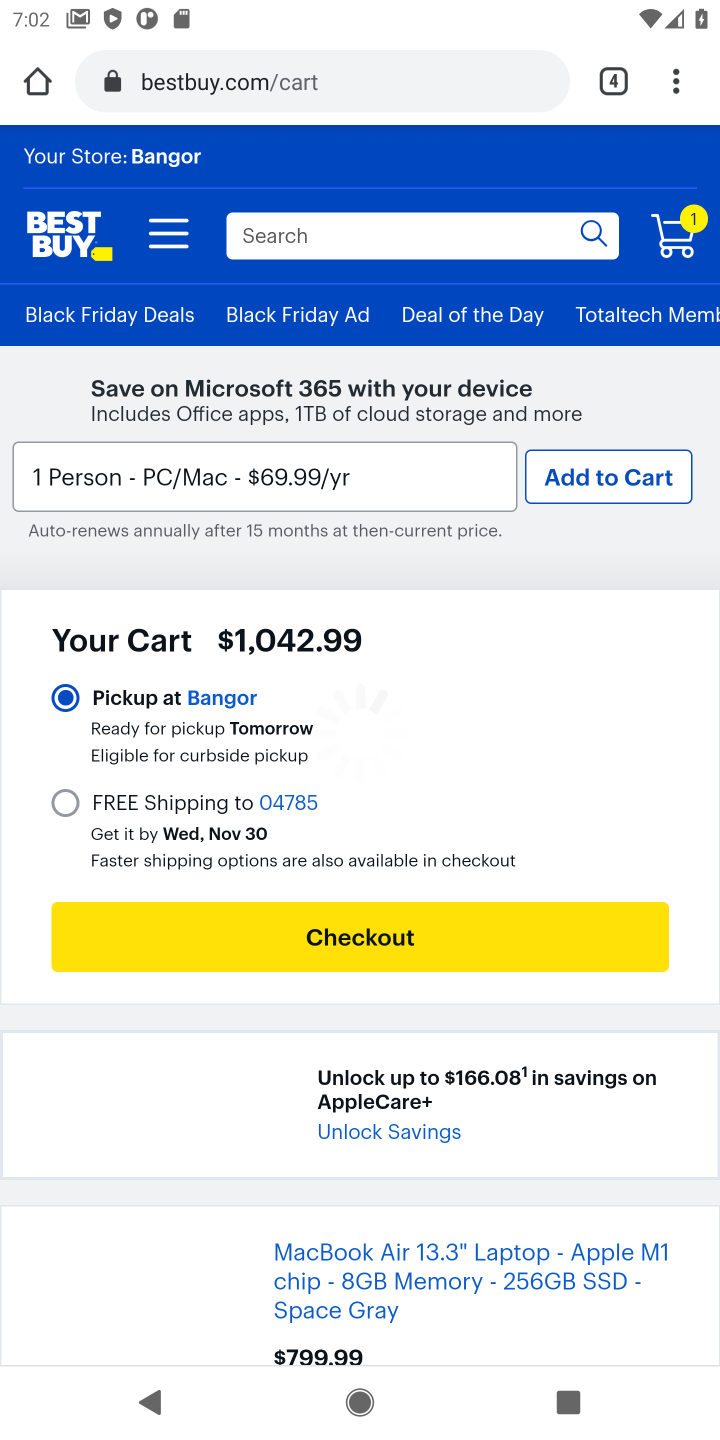
Step 28: click (269, 1145)
Your task to perform on an android device: Search for macbook air on bestbuy.com, select the first entry, add it to the cart, then select checkout. Image 29: 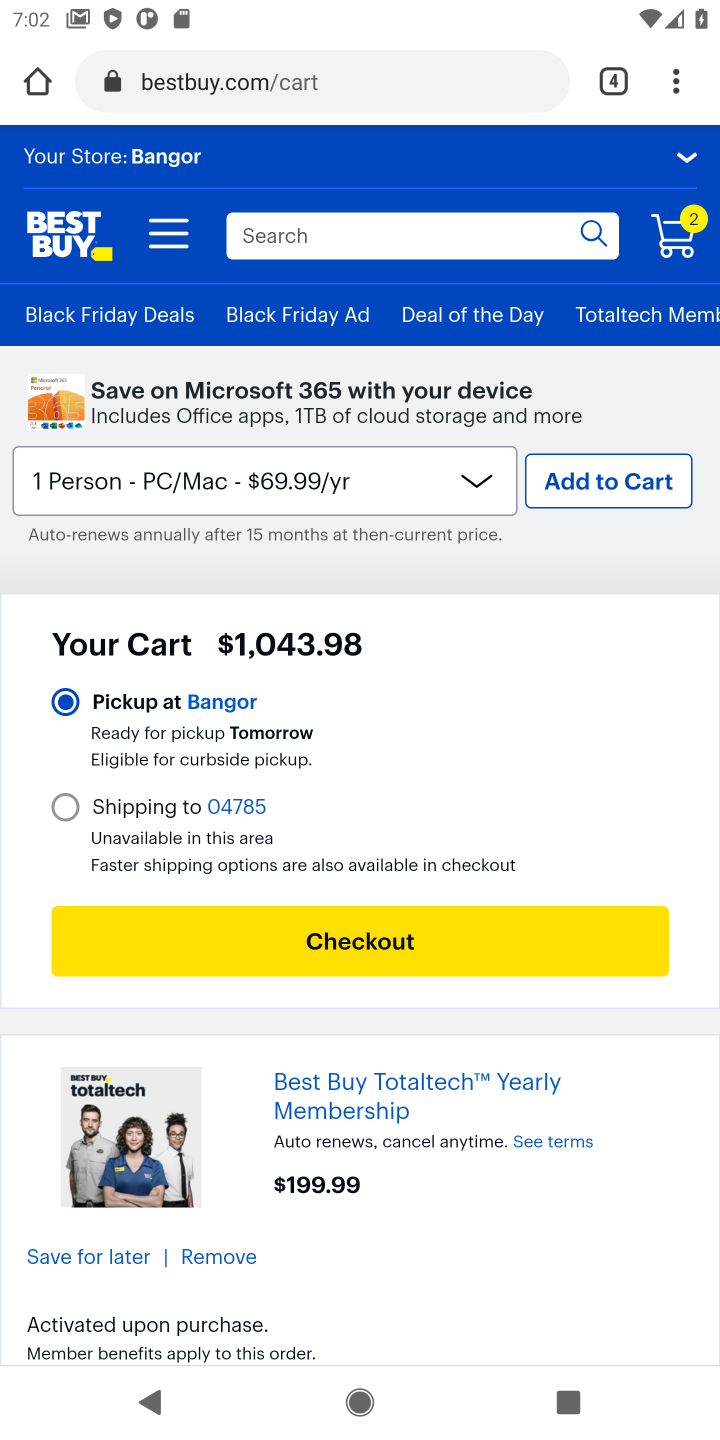
Step 29: click (353, 936)
Your task to perform on an android device: Search for macbook air on bestbuy.com, select the first entry, add it to the cart, then select checkout. Image 30: 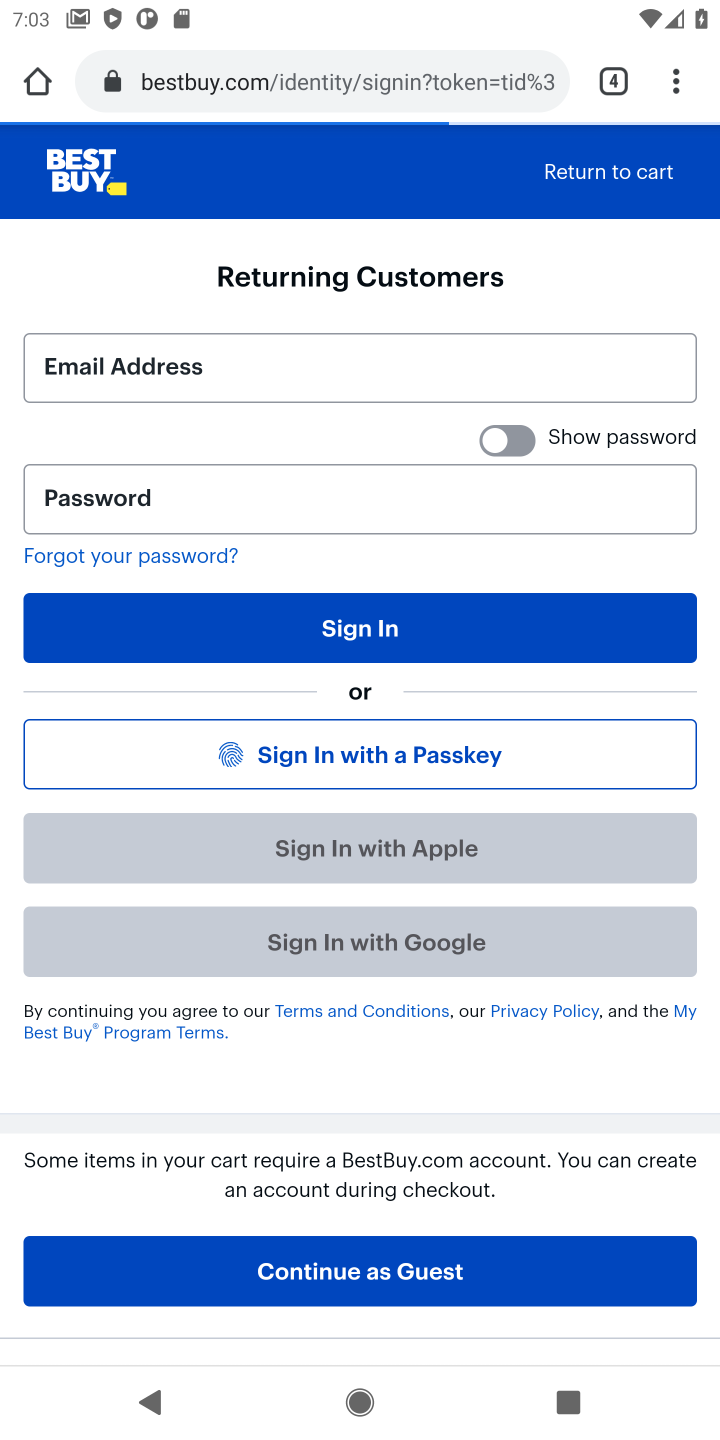
Step 30: task complete